Your task to perform on an android device: turn on improve location accuracy Image 0: 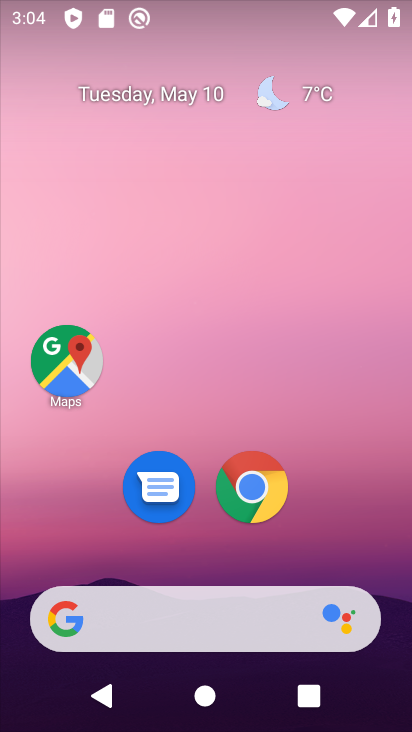
Step 0: drag from (317, 506) to (338, 61)
Your task to perform on an android device: turn on improve location accuracy Image 1: 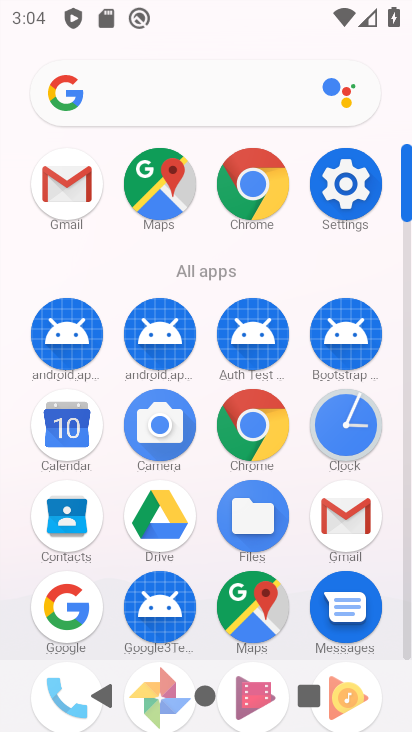
Step 1: click (342, 169)
Your task to perform on an android device: turn on improve location accuracy Image 2: 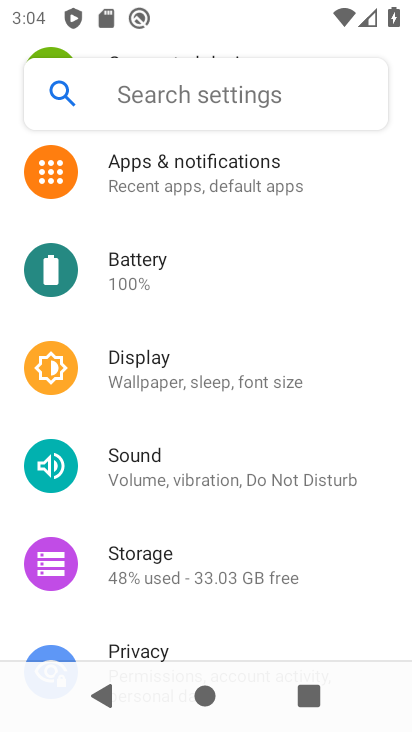
Step 2: drag from (231, 560) to (313, 208)
Your task to perform on an android device: turn on improve location accuracy Image 3: 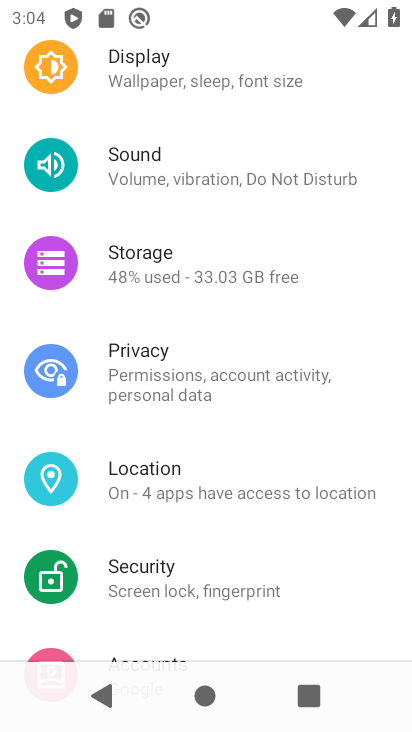
Step 3: click (208, 490)
Your task to perform on an android device: turn on improve location accuracy Image 4: 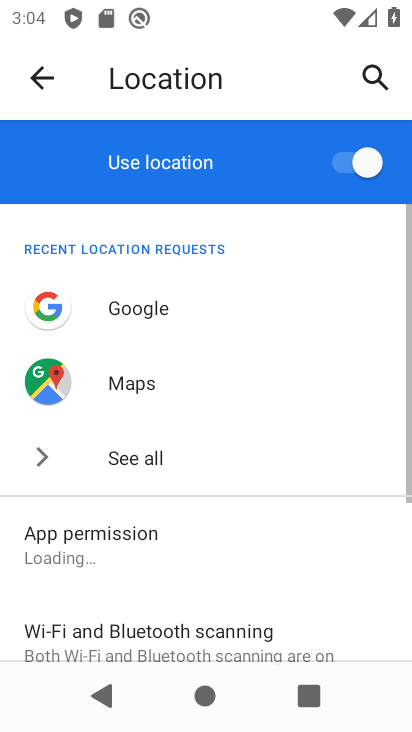
Step 4: drag from (265, 561) to (282, 279)
Your task to perform on an android device: turn on improve location accuracy Image 5: 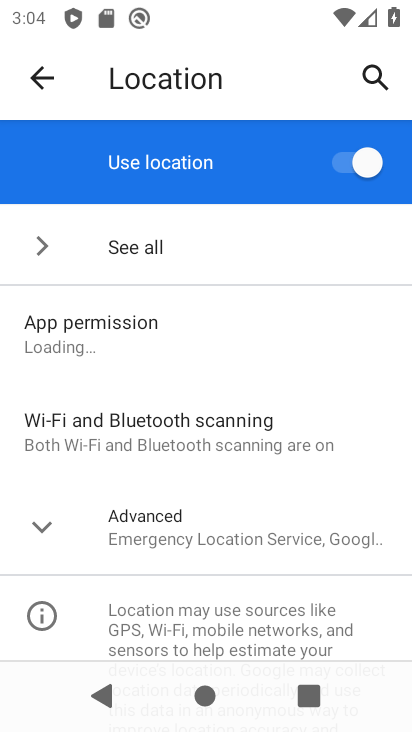
Step 5: click (151, 527)
Your task to perform on an android device: turn on improve location accuracy Image 6: 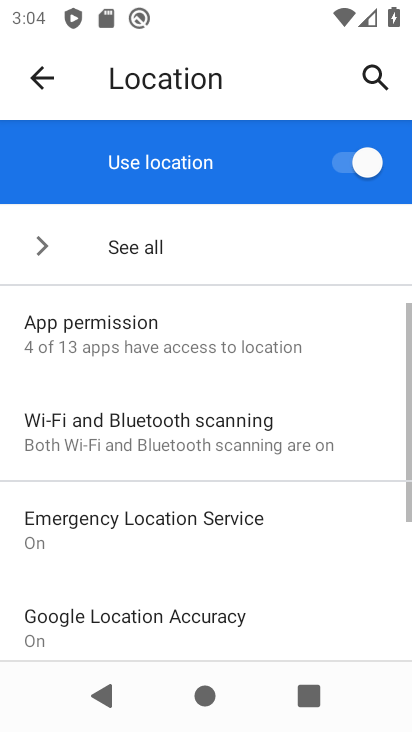
Step 6: drag from (301, 577) to (322, 269)
Your task to perform on an android device: turn on improve location accuracy Image 7: 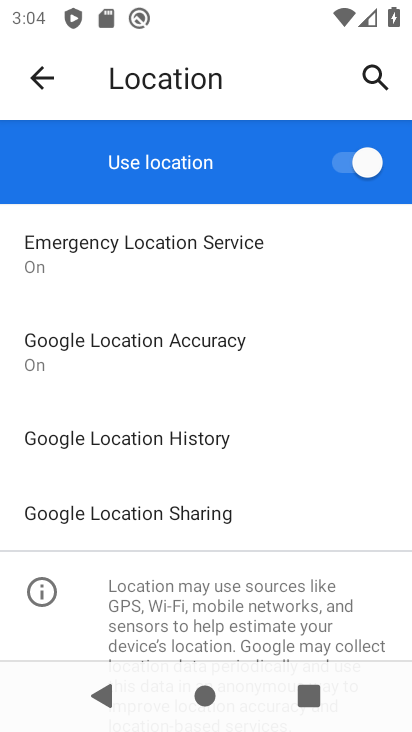
Step 7: click (210, 336)
Your task to perform on an android device: turn on improve location accuracy Image 8: 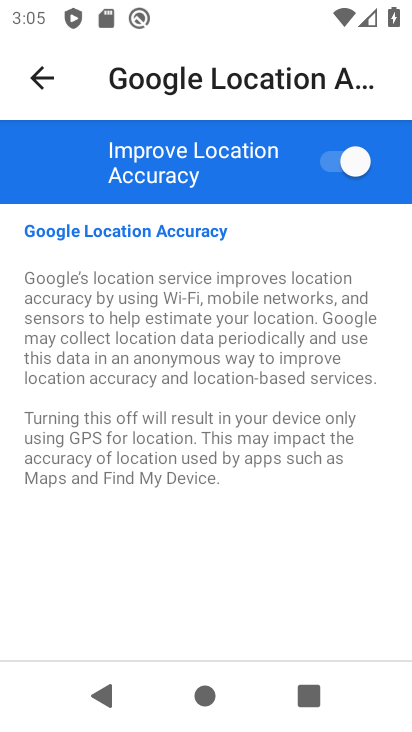
Step 8: task complete